Your task to perform on an android device: Go to ESPN.com Image 0: 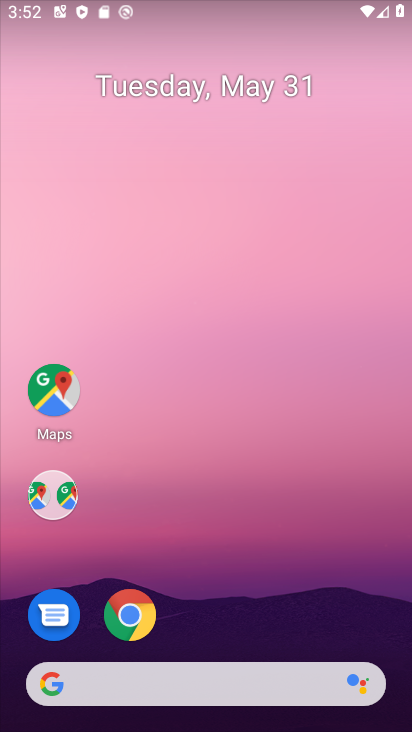
Step 0: drag from (346, 694) to (245, 143)
Your task to perform on an android device: Go to ESPN.com Image 1: 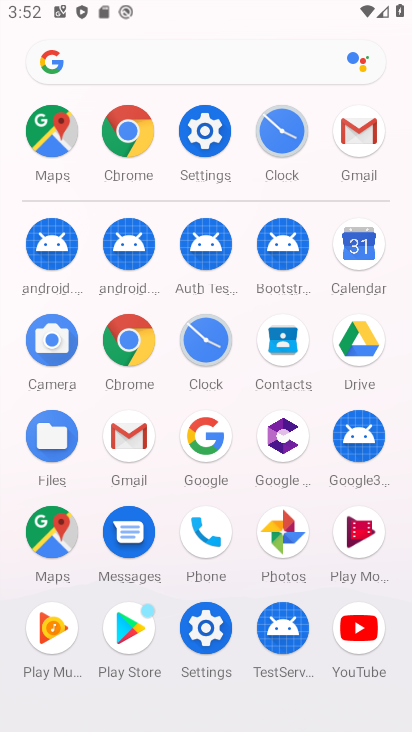
Step 1: click (138, 138)
Your task to perform on an android device: Go to ESPN.com Image 2: 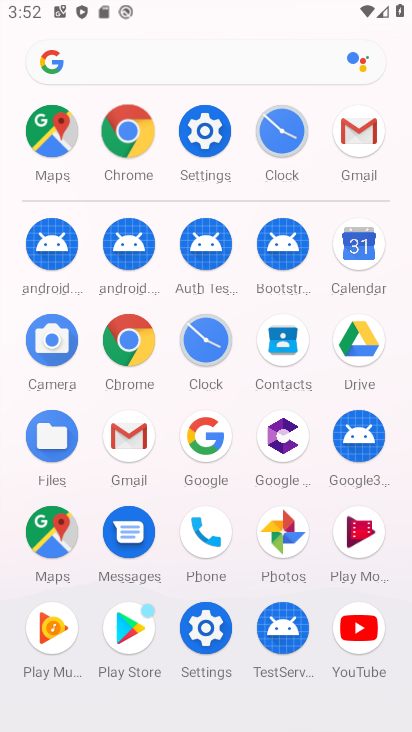
Step 2: click (113, 129)
Your task to perform on an android device: Go to ESPN.com Image 3: 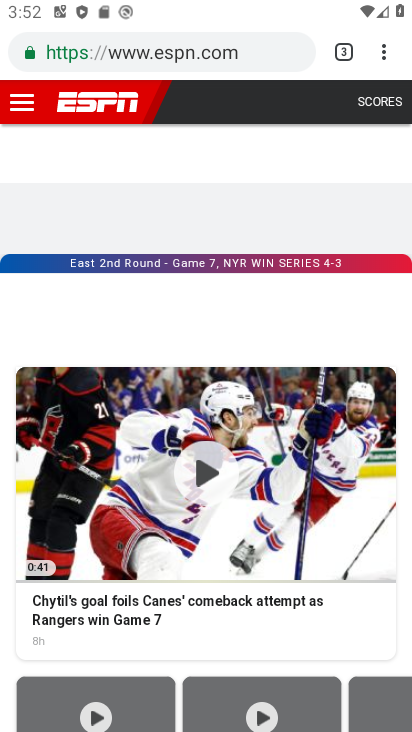
Step 3: click (379, 59)
Your task to perform on an android device: Go to ESPN.com Image 4: 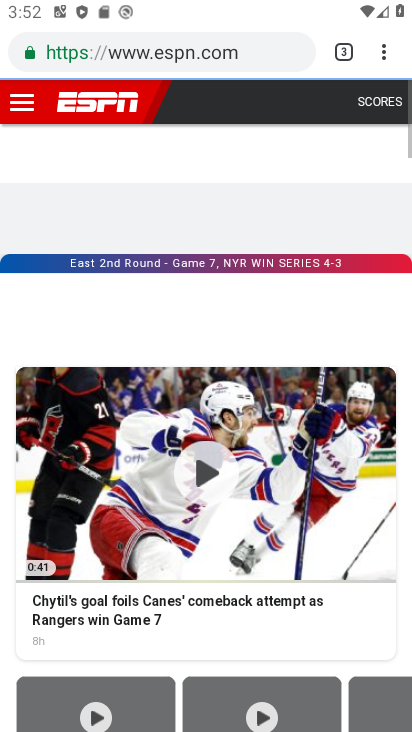
Step 4: drag from (379, 58) to (195, 116)
Your task to perform on an android device: Go to ESPN.com Image 5: 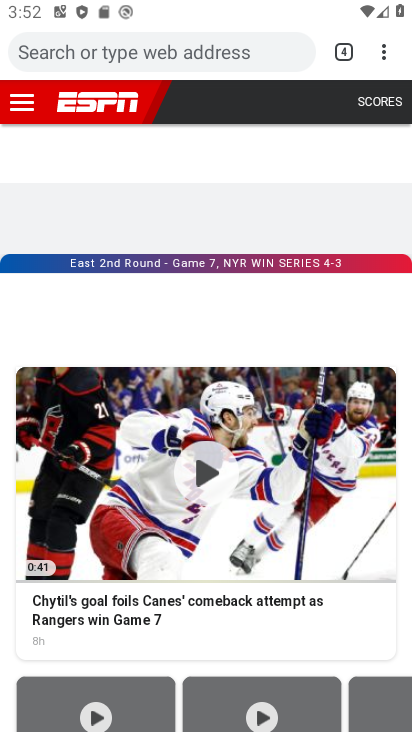
Step 5: click (39, 205)
Your task to perform on an android device: Go to ESPN.com Image 6: 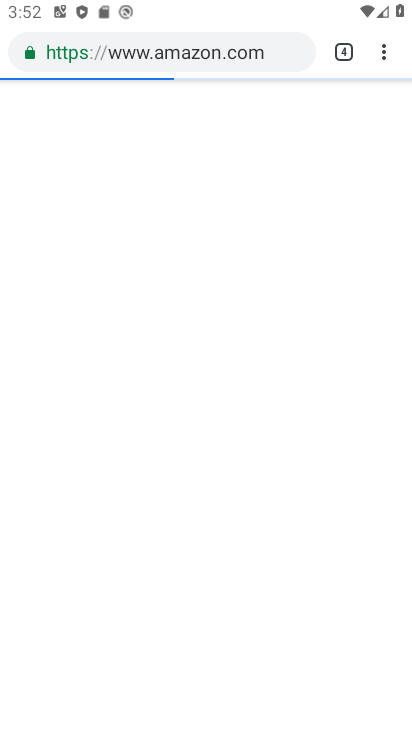
Step 6: task complete